Your task to perform on an android device: toggle notification dots Image 0: 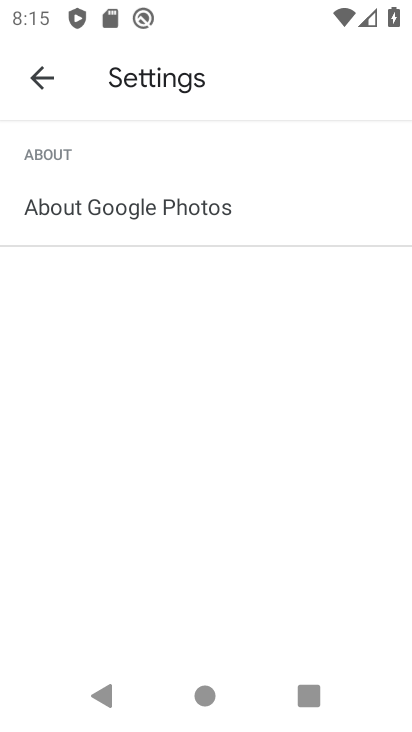
Step 0: press home button
Your task to perform on an android device: toggle notification dots Image 1: 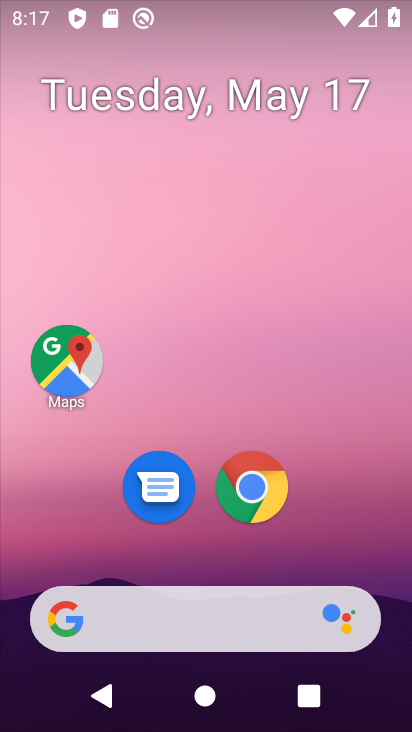
Step 1: drag from (245, 683) to (267, 232)
Your task to perform on an android device: toggle notification dots Image 2: 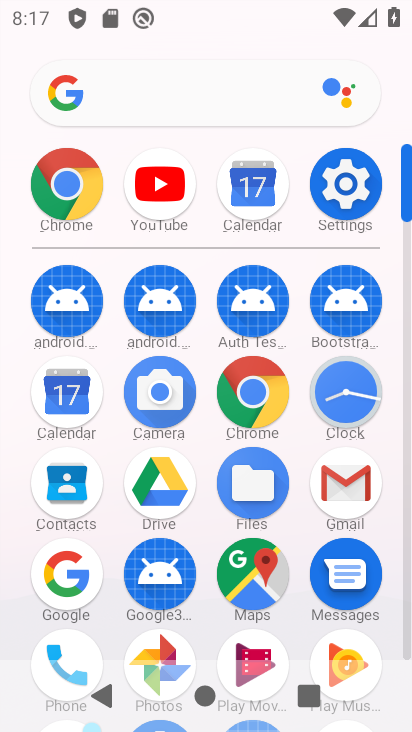
Step 2: click (344, 176)
Your task to perform on an android device: toggle notification dots Image 3: 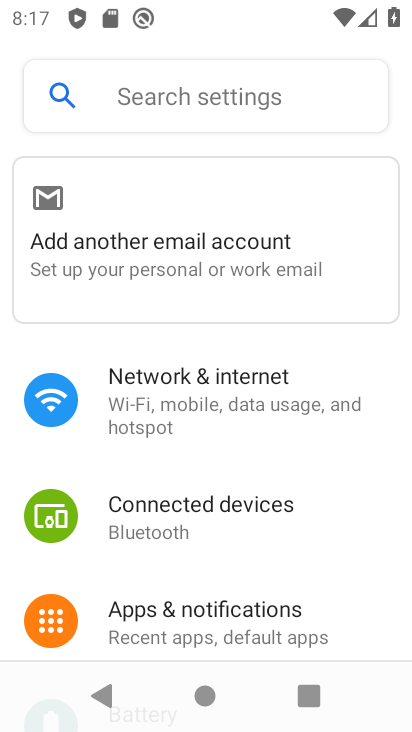
Step 3: click (201, 91)
Your task to perform on an android device: toggle notification dots Image 4: 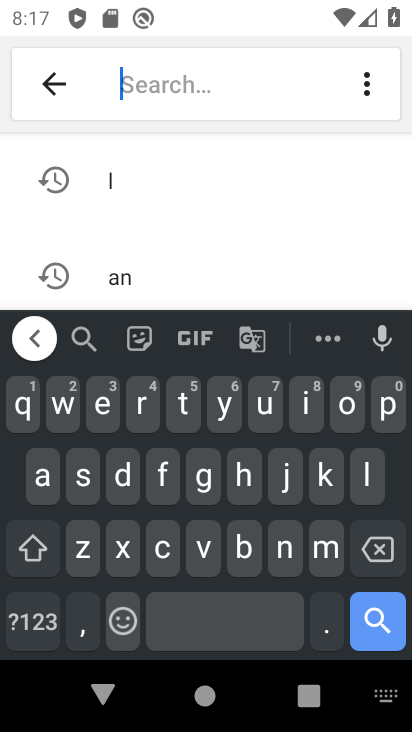
Step 4: click (125, 477)
Your task to perform on an android device: toggle notification dots Image 5: 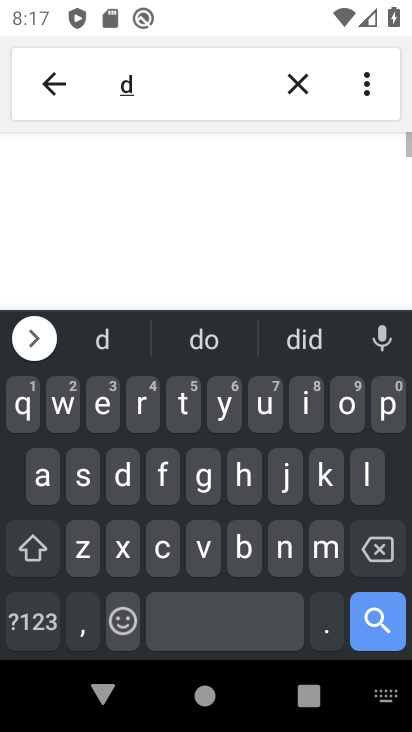
Step 5: click (345, 416)
Your task to perform on an android device: toggle notification dots Image 6: 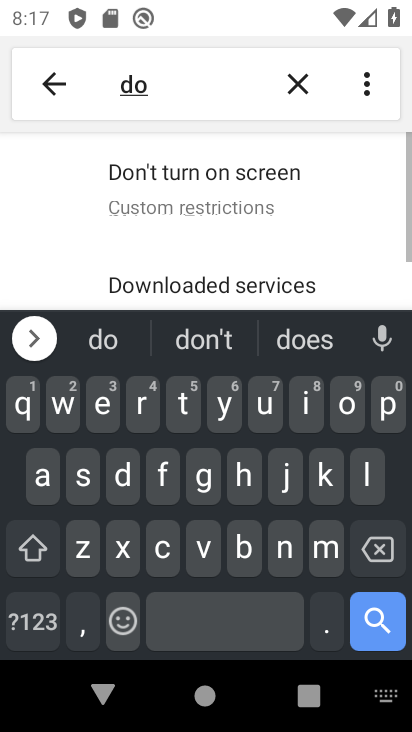
Step 6: click (181, 415)
Your task to perform on an android device: toggle notification dots Image 7: 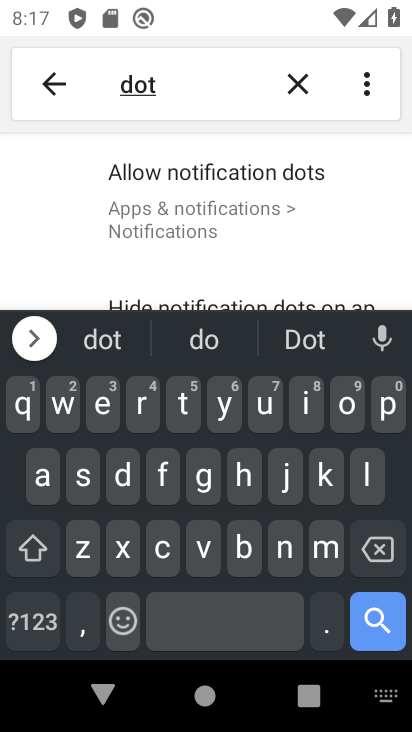
Step 7: click (274, 209)
Your task to perform on an android device: toggle notification dots Image 8: 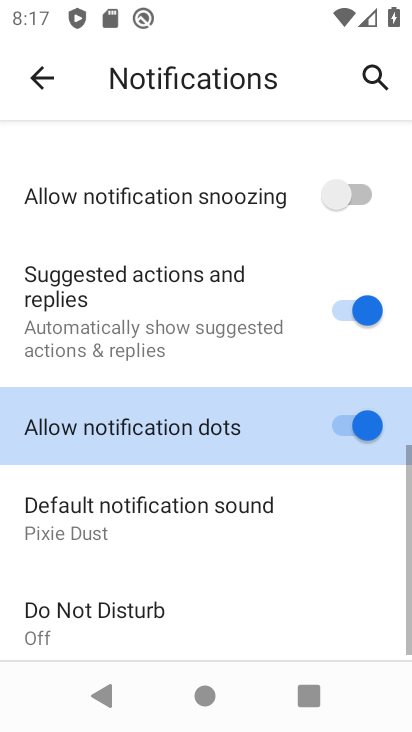
Step 8: task complete